Your task to perform on an android device: turn off airplane mode Image 0: 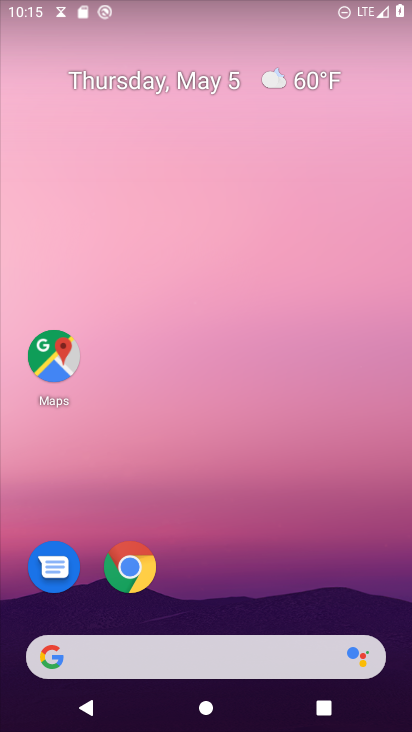
Step 0: drag from (222, 727) to (220, 200)
Your task to perform on an android device: turn off airplane mode Image 1: 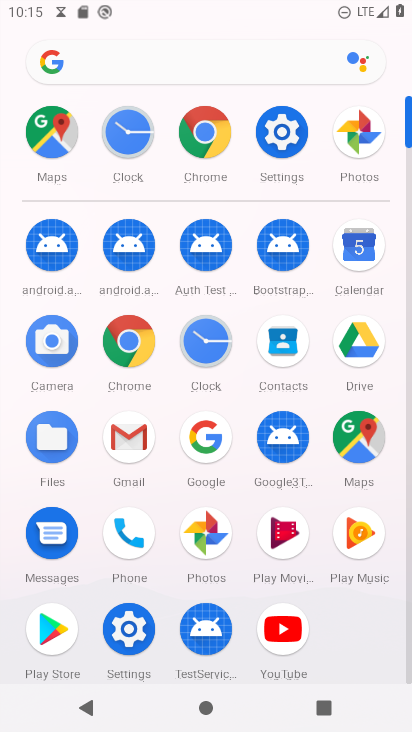
Step 1: click (276, 136)
Your task to perform on an android device: turn off airplane mode Image 2: 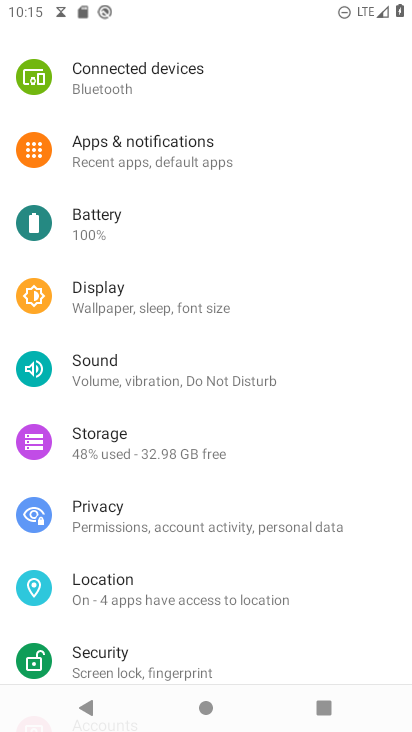
Step 2: drag from (169, 119) to (160, 299)
Your task to perform on an android device: turn off airplane mode Image 3: 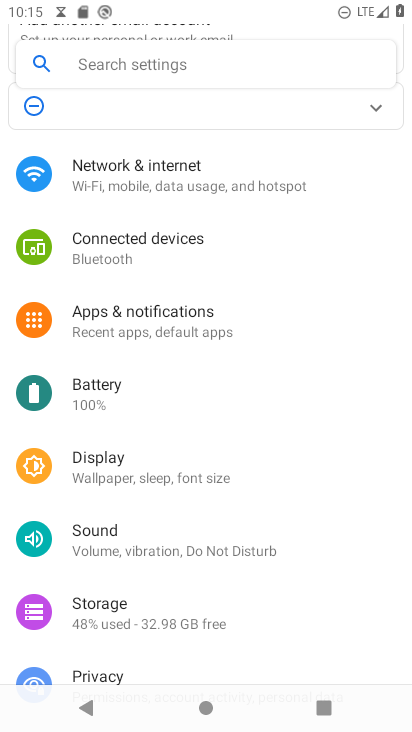
Step 3: click (120, 182)
Your task to perform on an android device: turn off airplane mode Image 4: 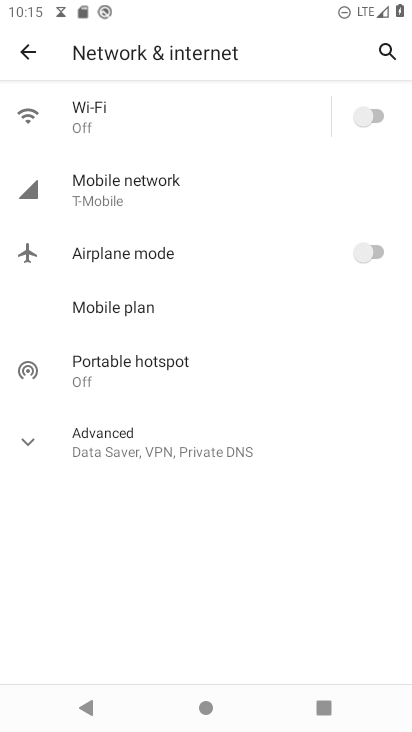
Step 4: task complete